Your task to perform on an android device: change alarm snooze length Image 0: 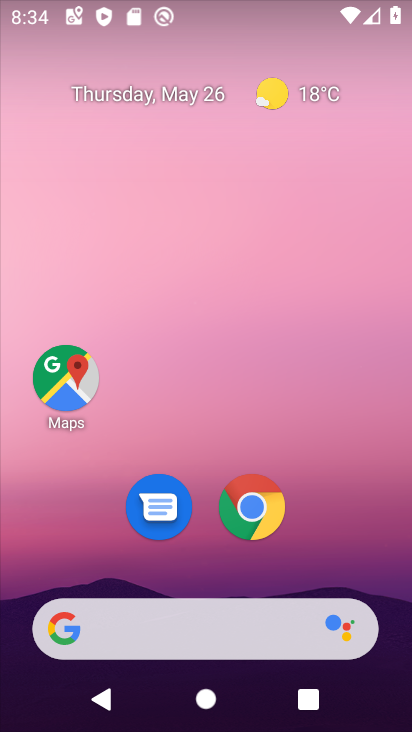
Step 0: drag from (287, 661) to (234, 142)
Your task to perform on an android device: change alarm snooze length Image 1: 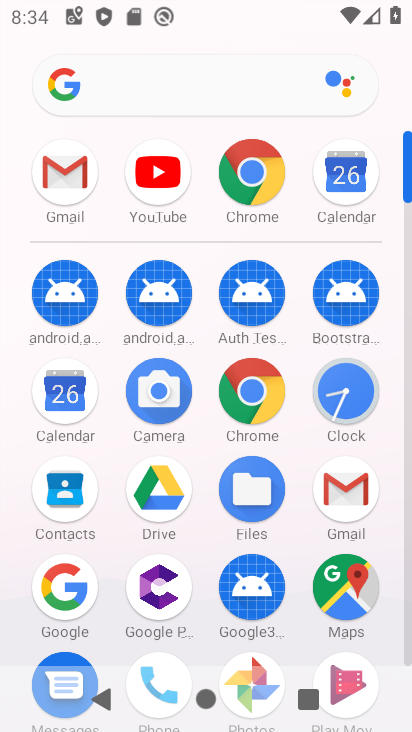
Step 1: click (336, 384)
Your task to perform on an android device: change alarm snooze length Image 2: 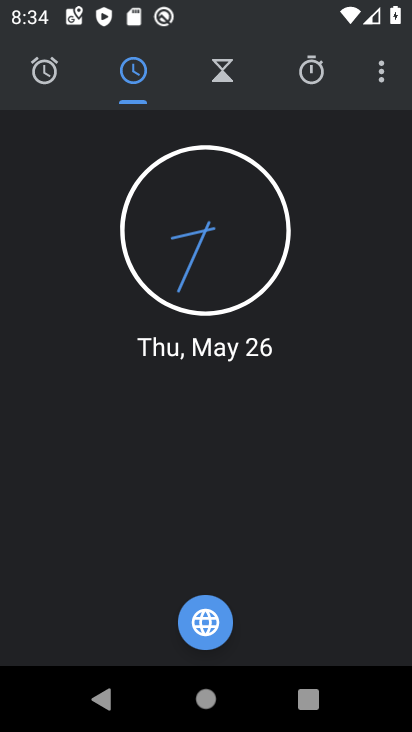
Step 2: click (389, 71)
Your task to perform on an android device: change alarm snooze length Image 3: 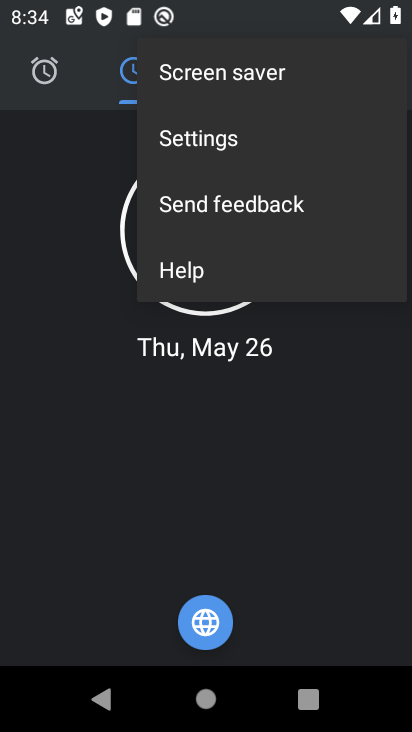
Step 3: click (215, 126)
Your task to perform on an android device: change alarm snooze length Image 4: 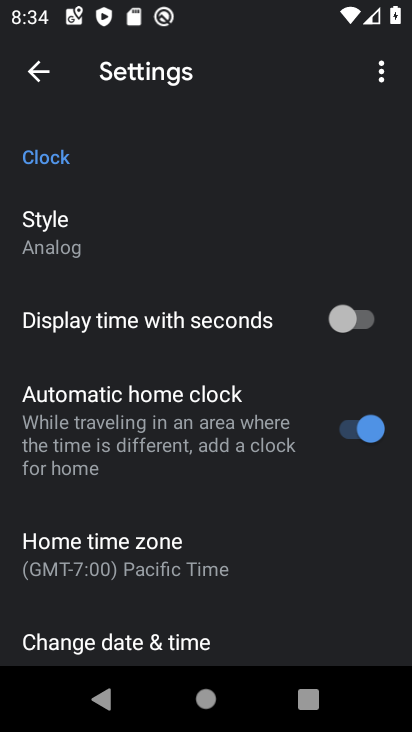
Step 4: drag from (171, 584) to (233, 223)
Your task to perform on an android device: change alarm snooze length Image 5: 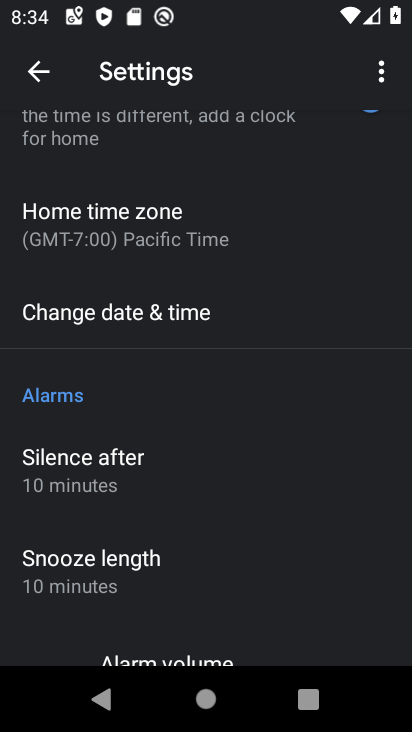
Step 5: click (135, 540)
Your task to perform on an android device: change alarm snooze length Image 6: 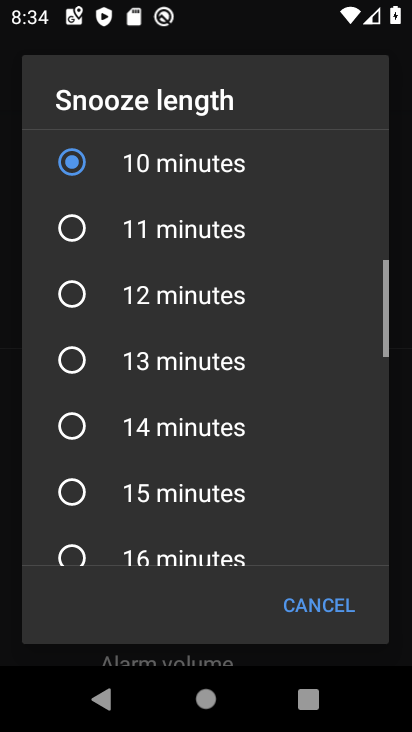
Step 6: click (190, 362)
Your task to perform on an android device: change alarm snooze length Image 7: 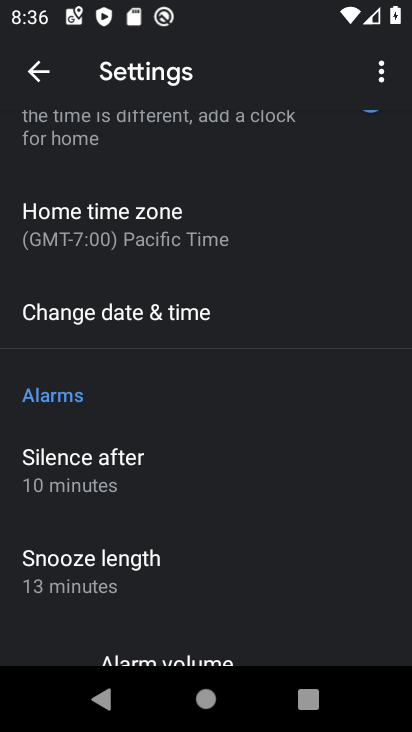
Step 7: task complete